Your task to perform on an android device: open app "Nova Launcher" (install if not already installed) Image 0: 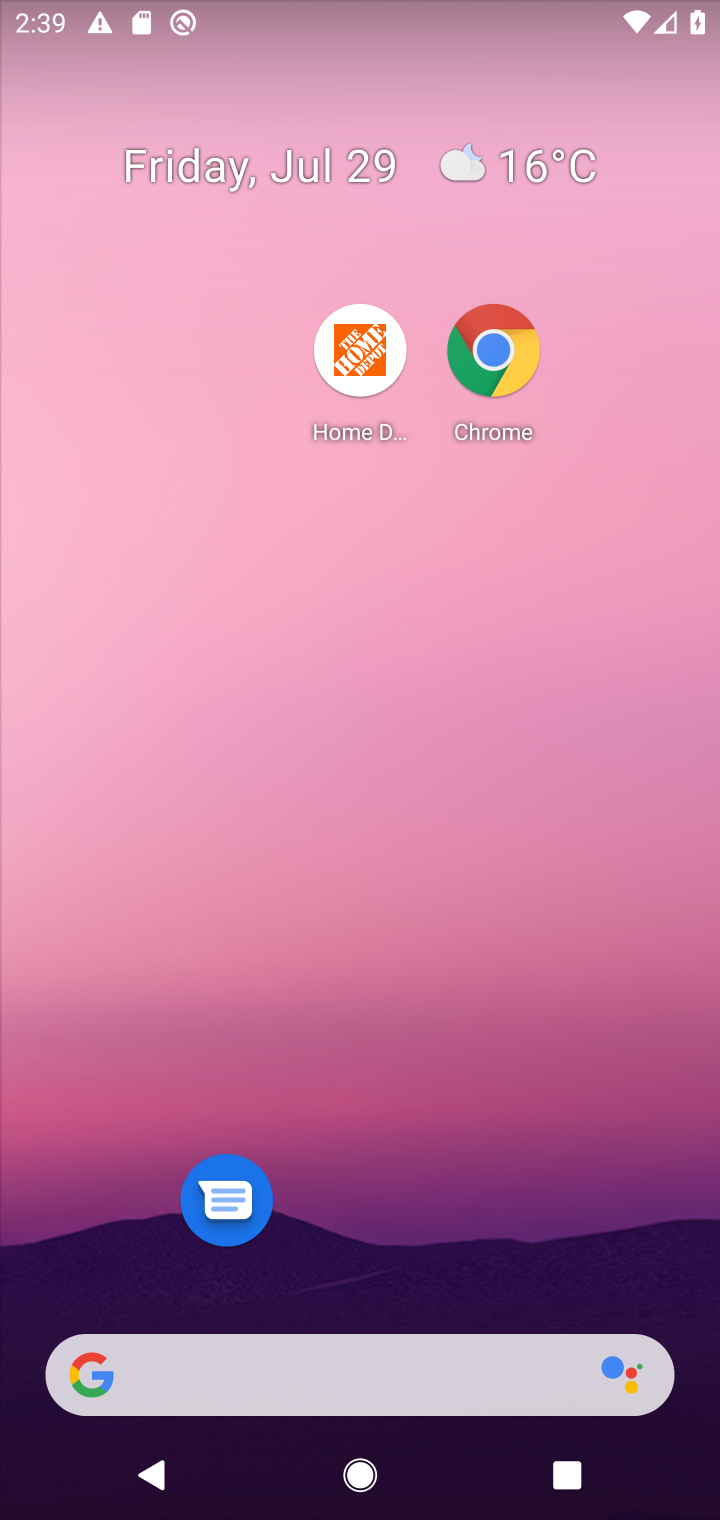
Step 0: drag from (535, 1094) to (504, 173)
Your task to perform on an android device: open app "Nova Launcher" (install if not already installed) Image 1: 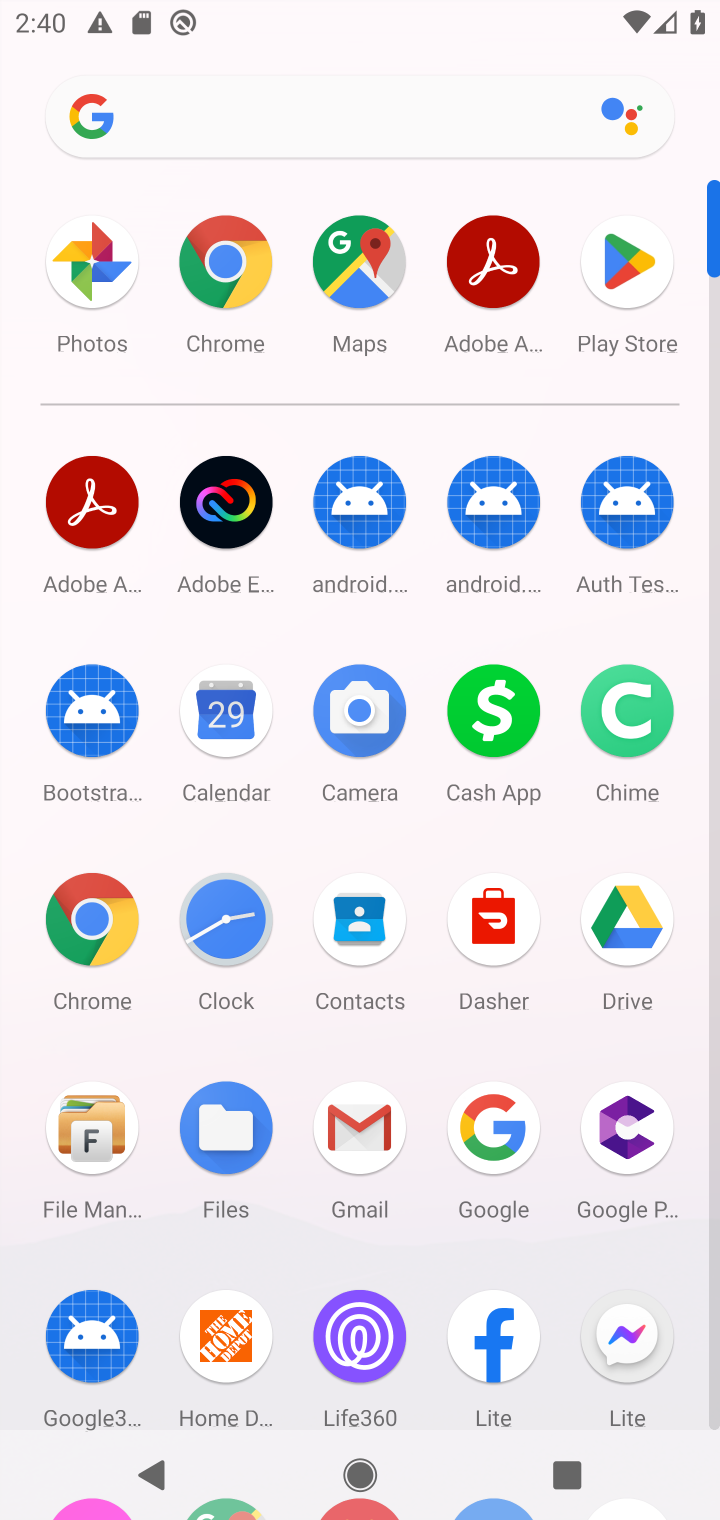
Step 1: click (635, 261)
Your task to perform on an android device: open app "Nova Launcher" (install if not already installed) Image 2: 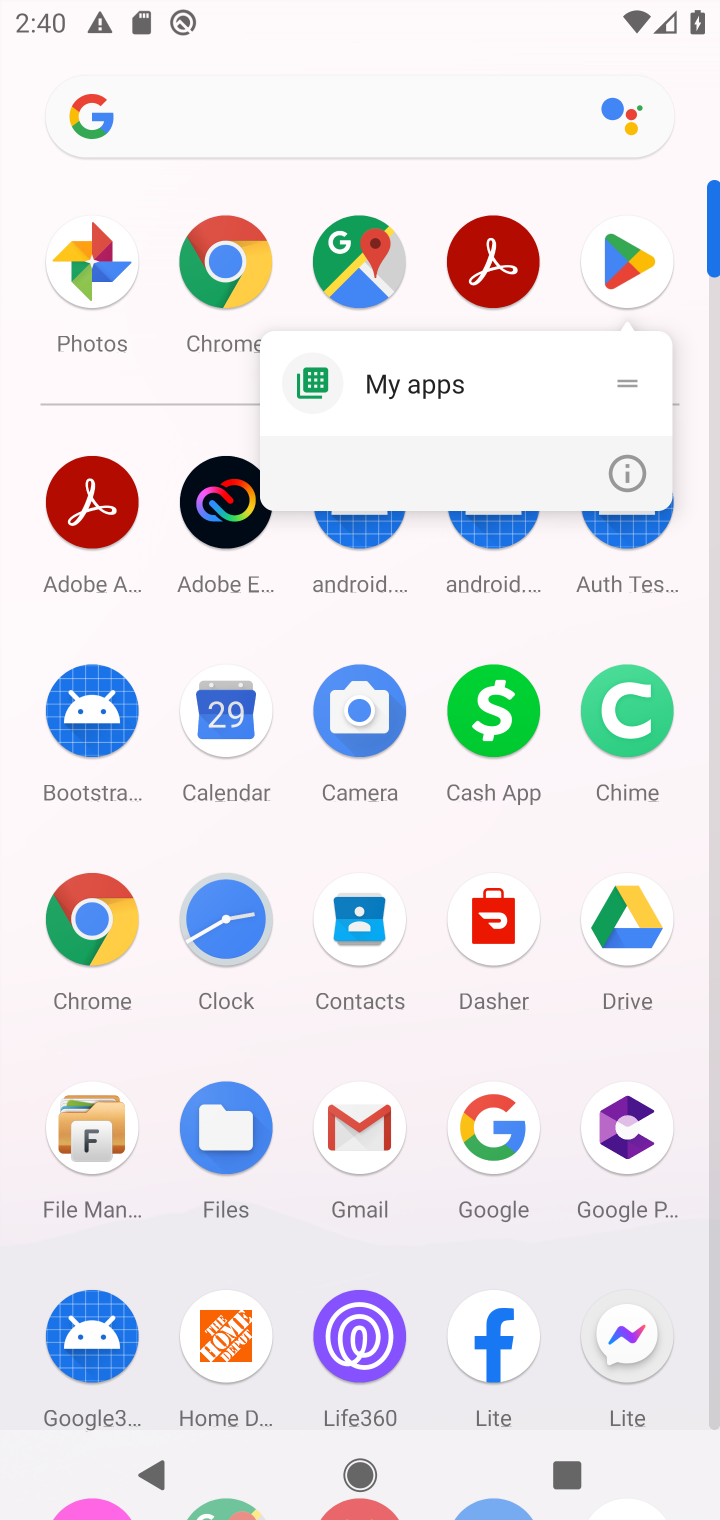
Step 2: click (635, 261)
Your task to perform on an android device: open app "Nova Launcher" (install if not already installed) Image 3: 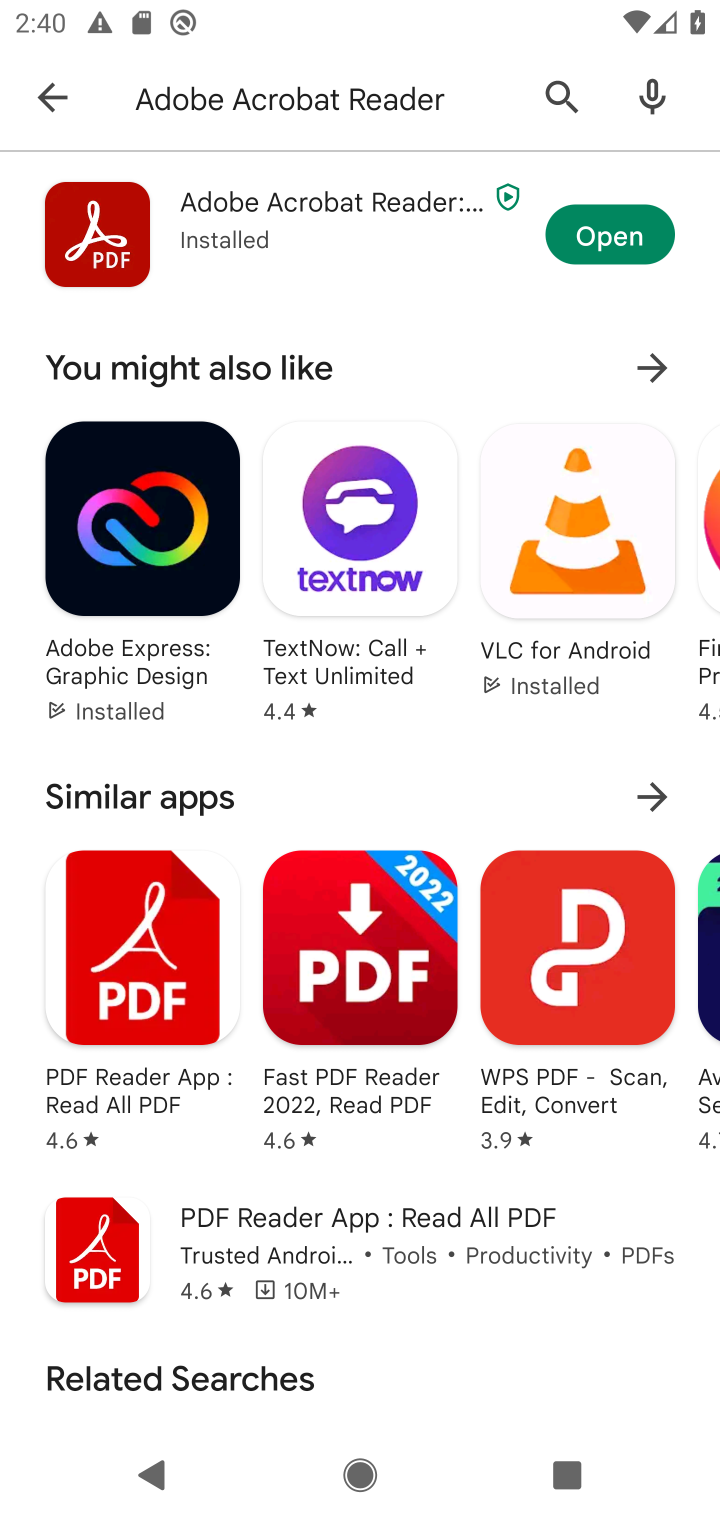
Step 3: click (279, 95)
Your task to perform on an android device: open app "Nova Launcher" (install if not already installed) Image 4: 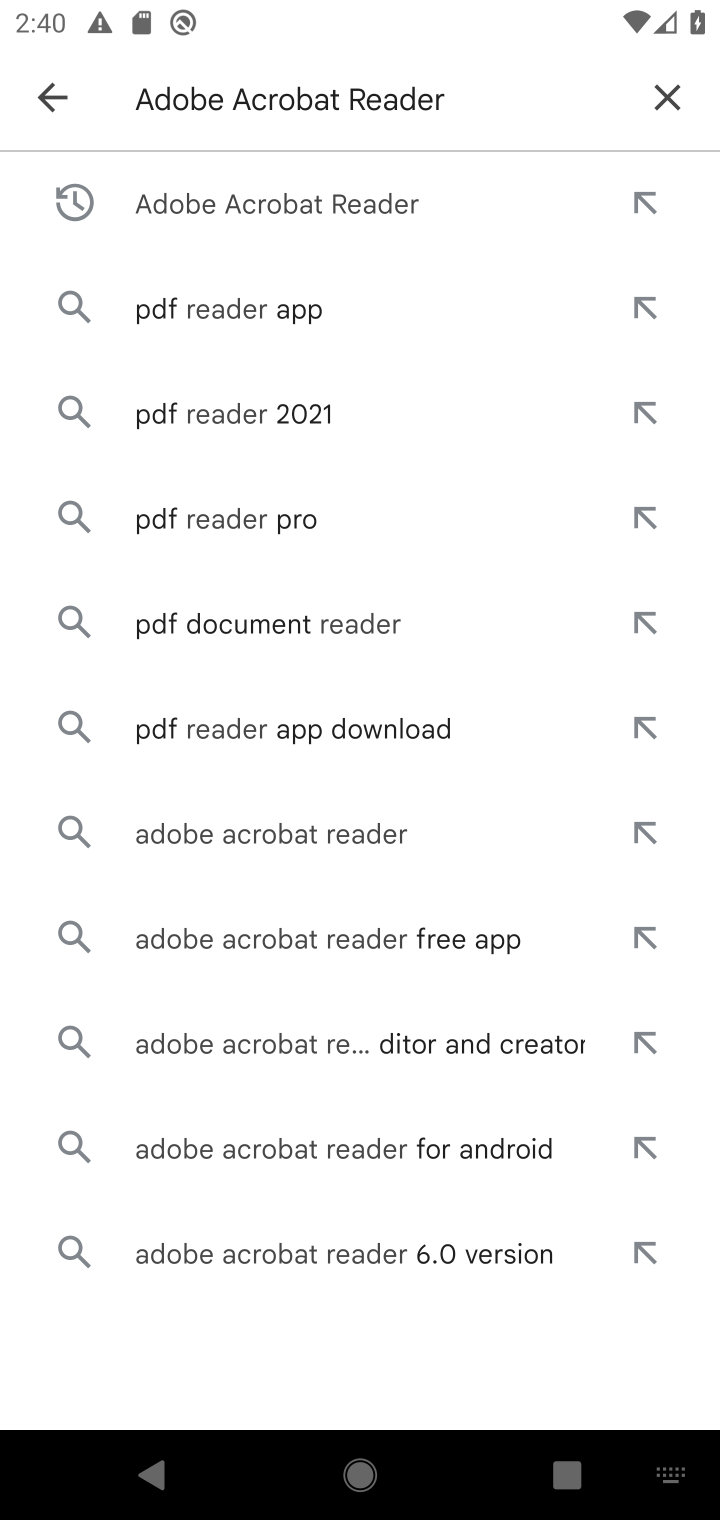
Step 4: click (667, 92)
Your task to perform on an android device: open app "Nova Launcher" (install if not already installed) Image 5: 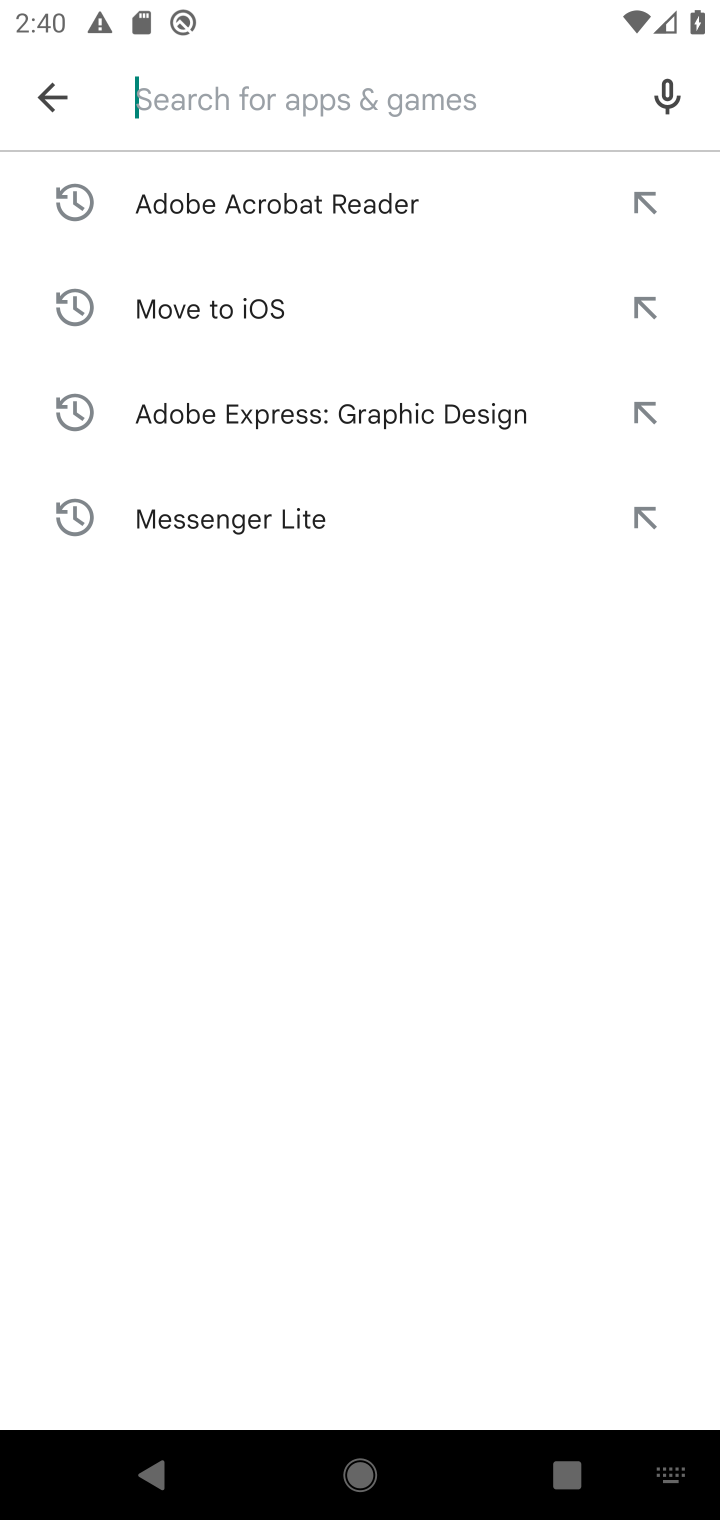
Step 5: type "Nova Launcher"
Your task to perform on an android device: open app "Nova Launcher" (install if not already installed) Image 6: 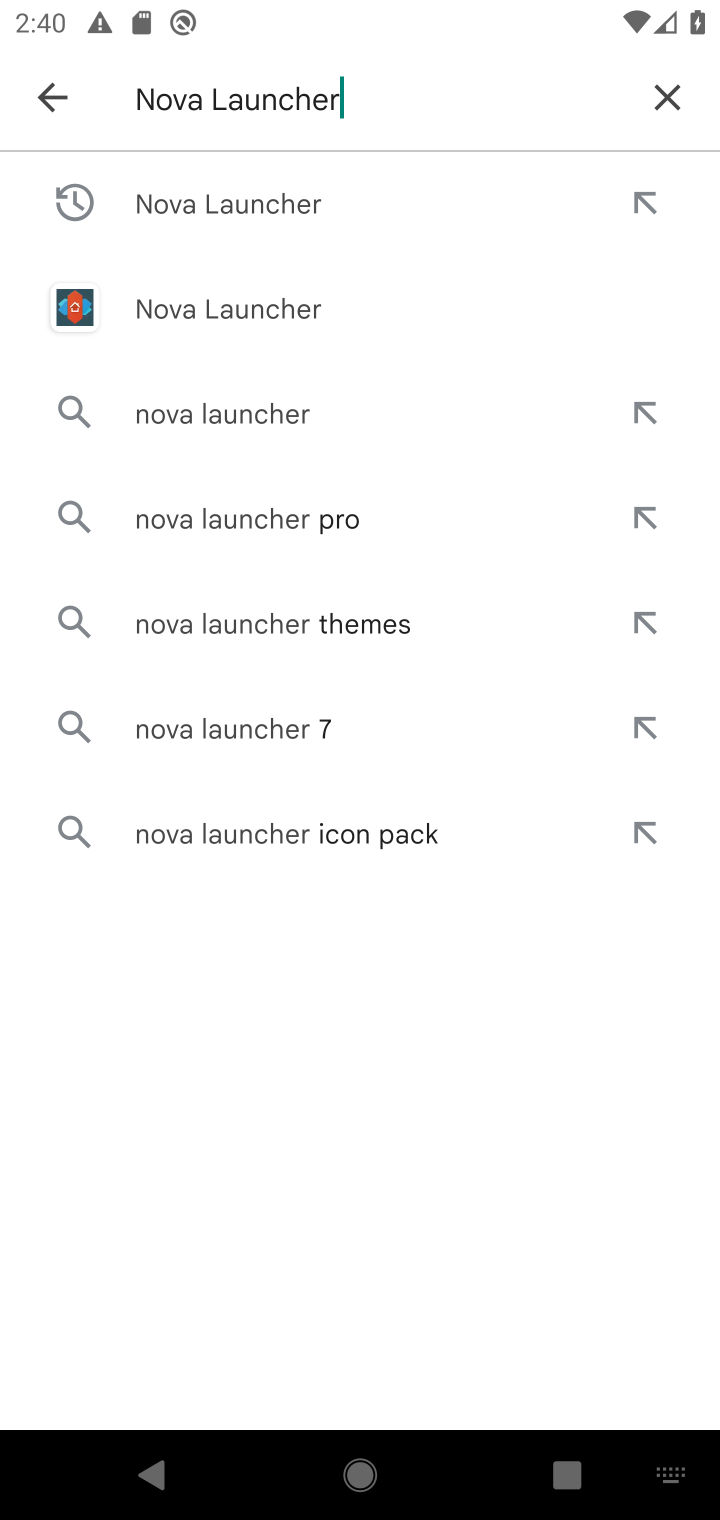
Step 6: press enter
Your task to perform on an android device: open app "Nova Launcher" (install if not already installed) Image 7: 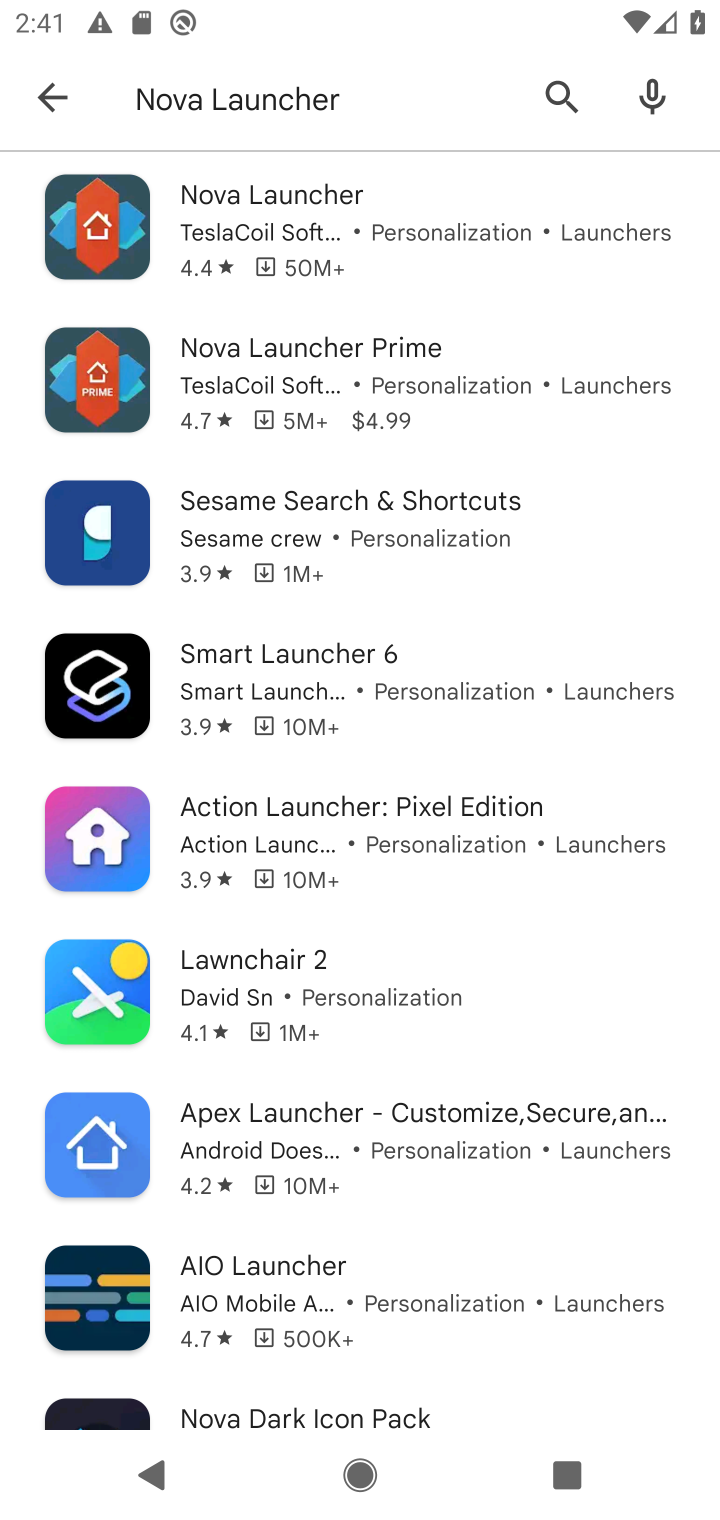
Step 7: click (300, 225)
Your task to perform on an android device: open app "Nova Launcher" (install if not already installed) Image 8: 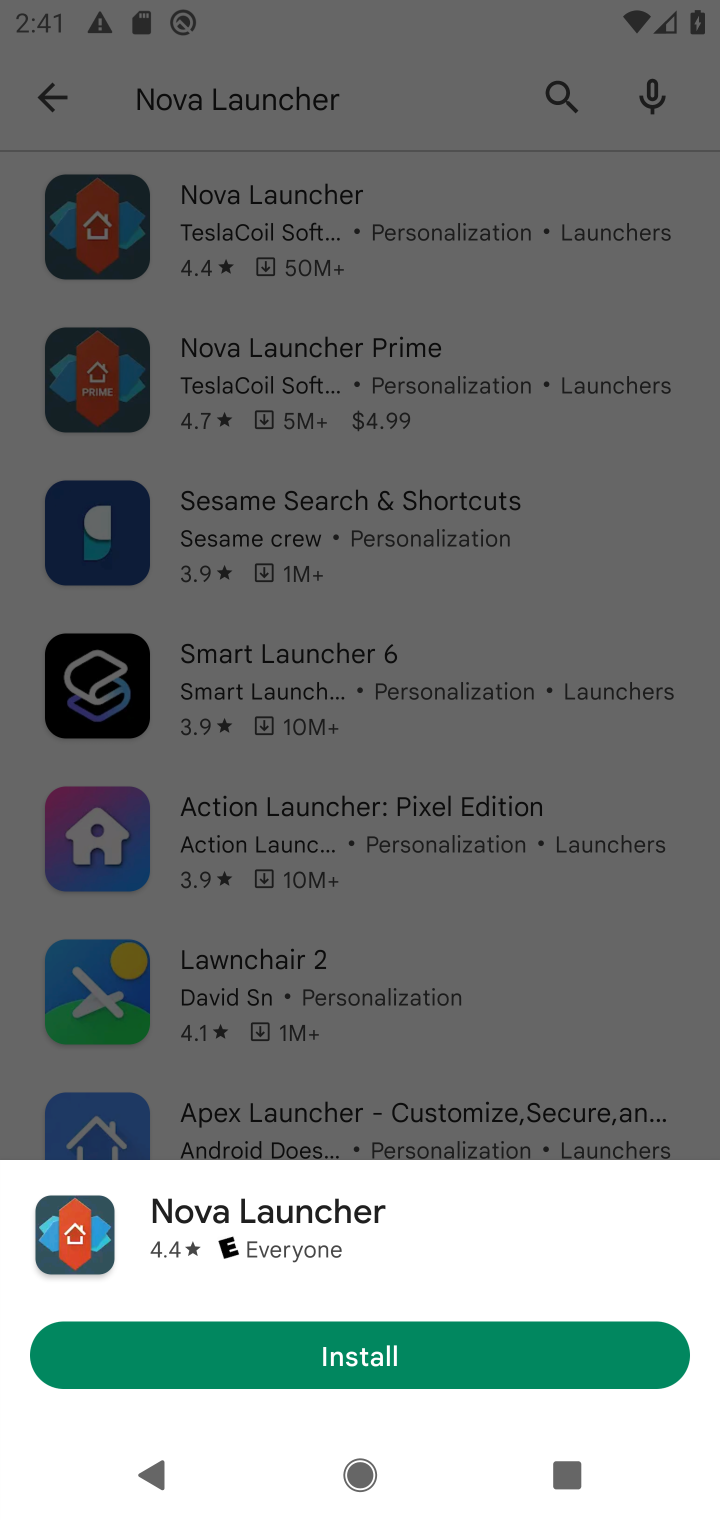
Step 8: click (410, 1351)
Your task to perform on an android device: open app "Nova Launcher" (install if not already installed) Image 9: 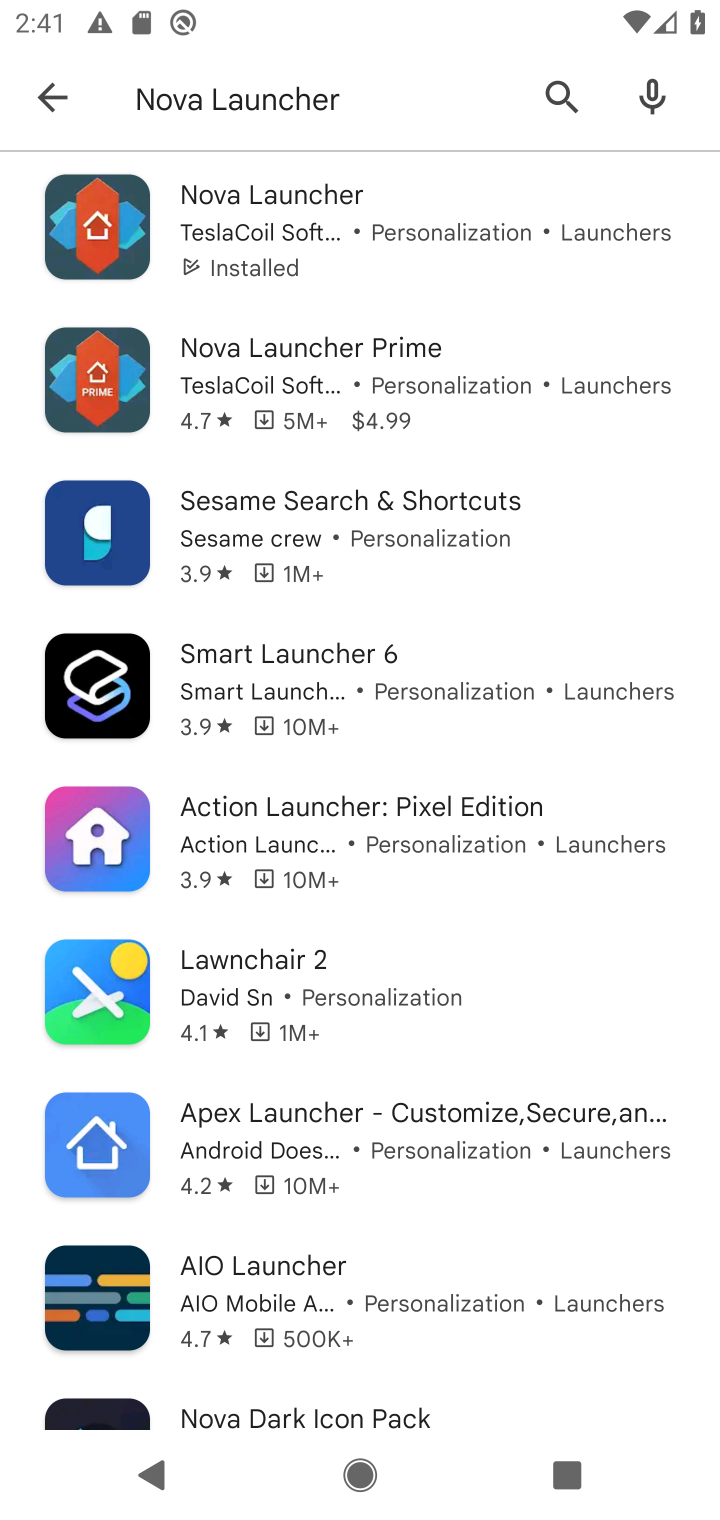
Step 9: click (298, 239)
Your task to perform on an android device: open app "Nova Launcher" (install if not already installed) Image 10: 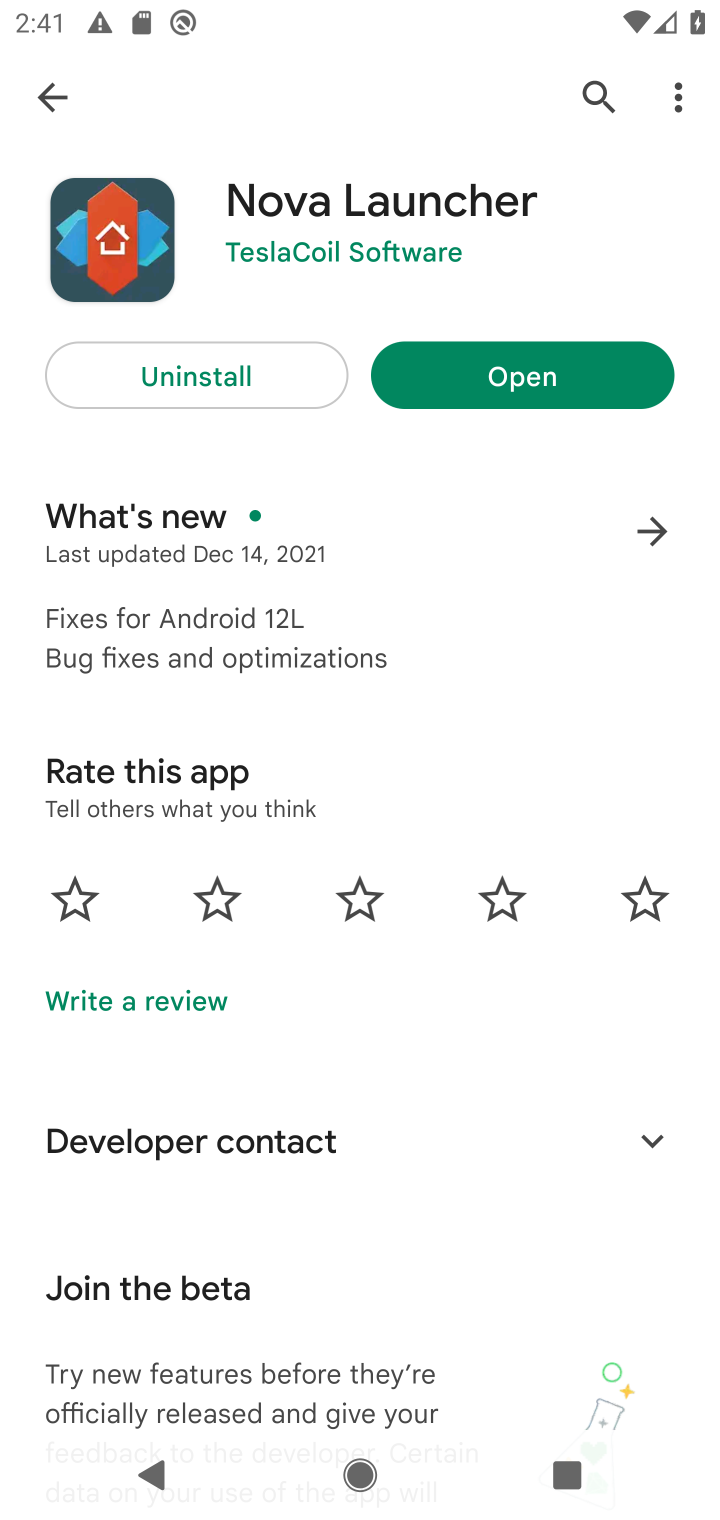
Step 10: click (521, 383)
Your task to perform on an android device: open app "Nova Launcher" (install if not already installed) Image 11: 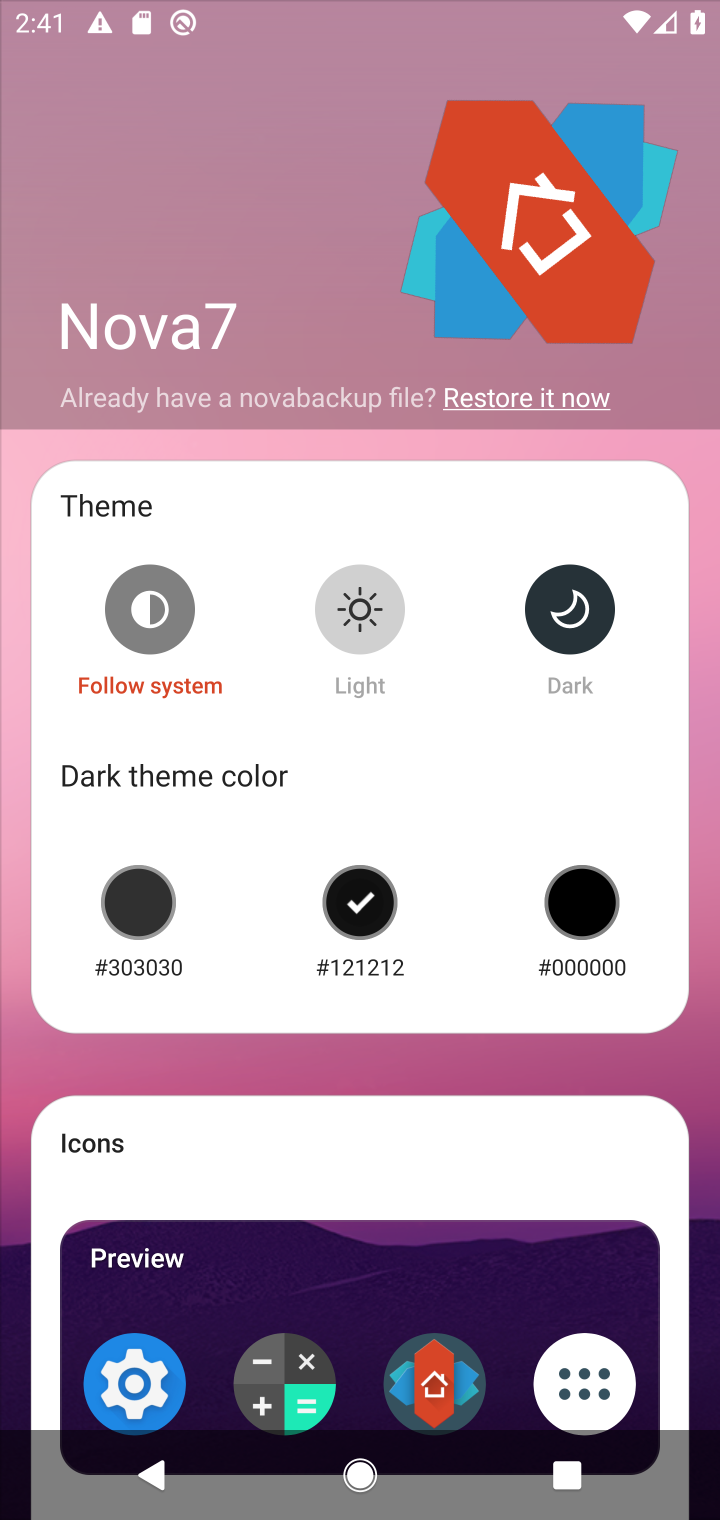
Step 11: task complete